Your task to perform on an android device: Is it going to rain today? Image 0: 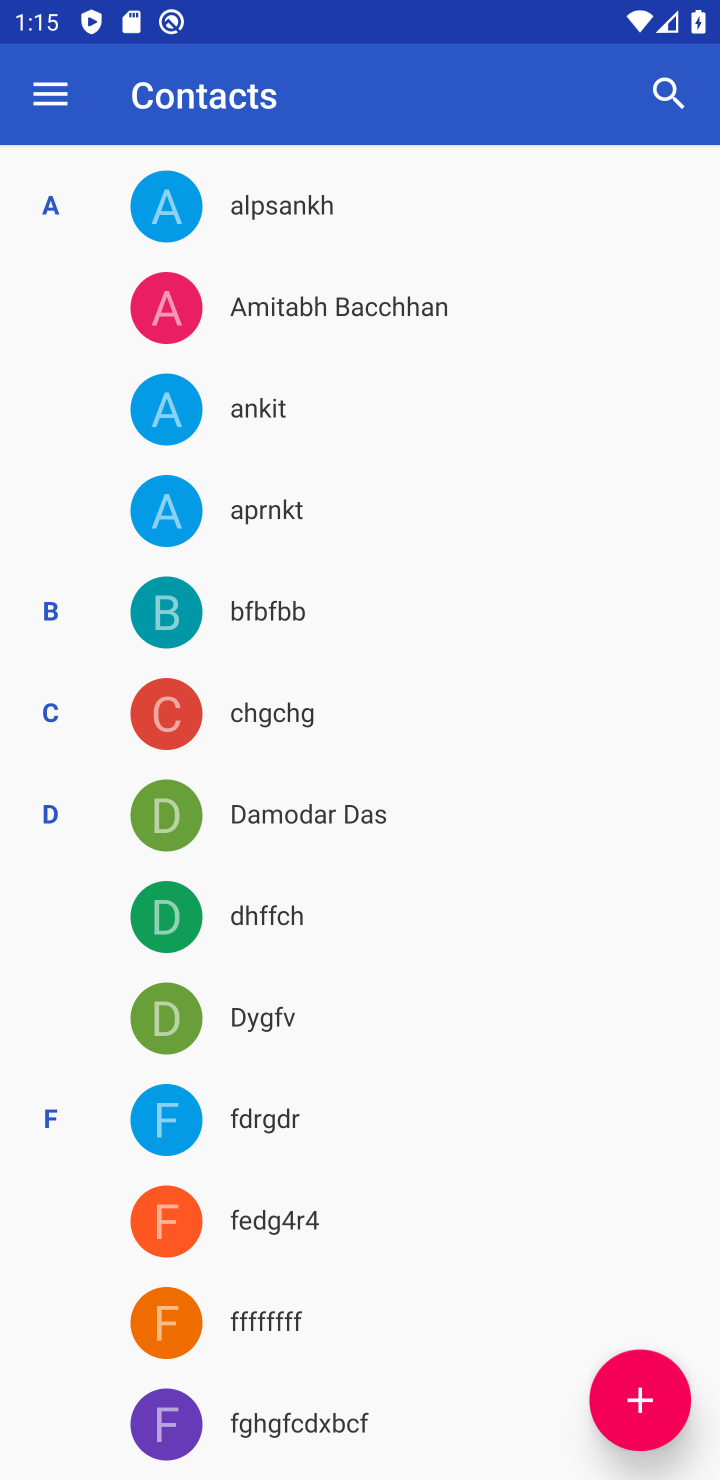
Step 0: press home button
Your task to perform on an android device: Is it going to rain today? Image 1: 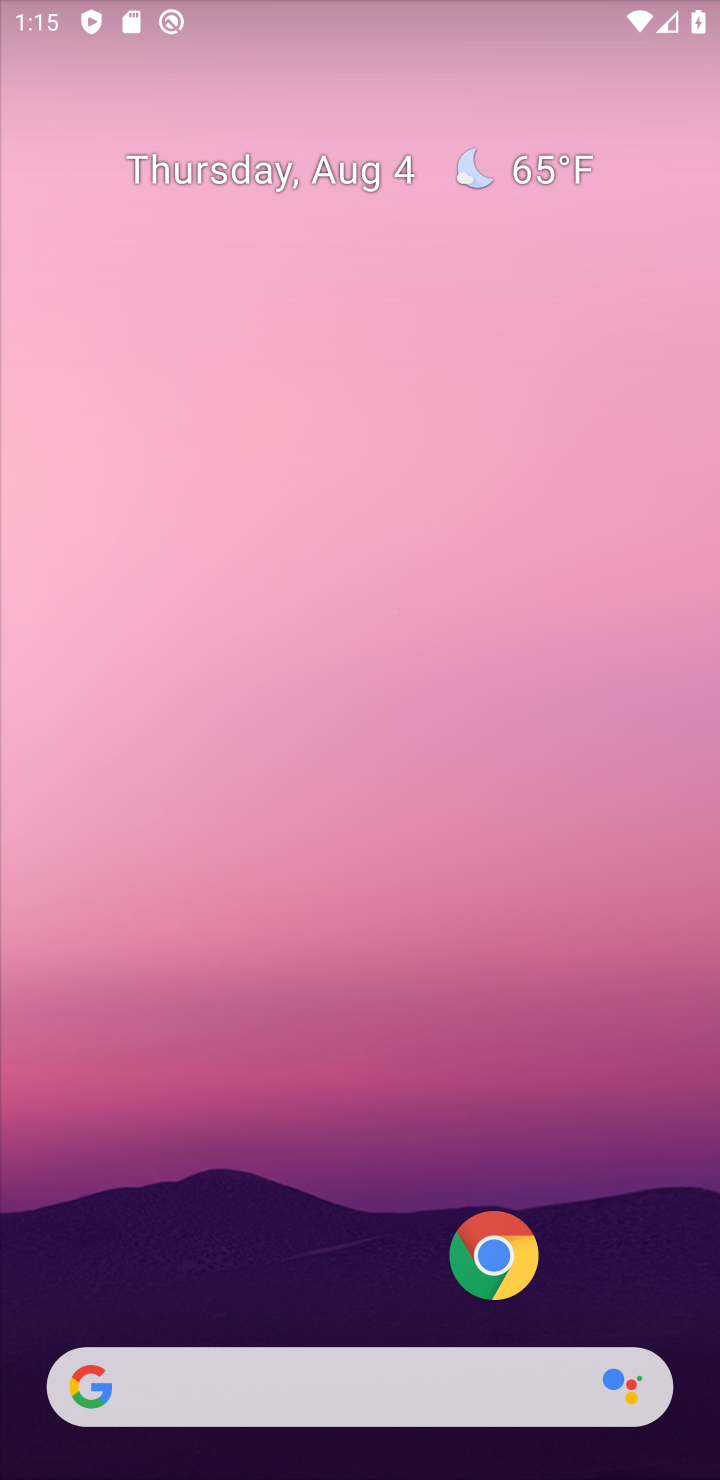
Step 1: drag from (205, 956) to (232, 85)
Your task to perform on an android device: Is it going to rain today? Image 2: 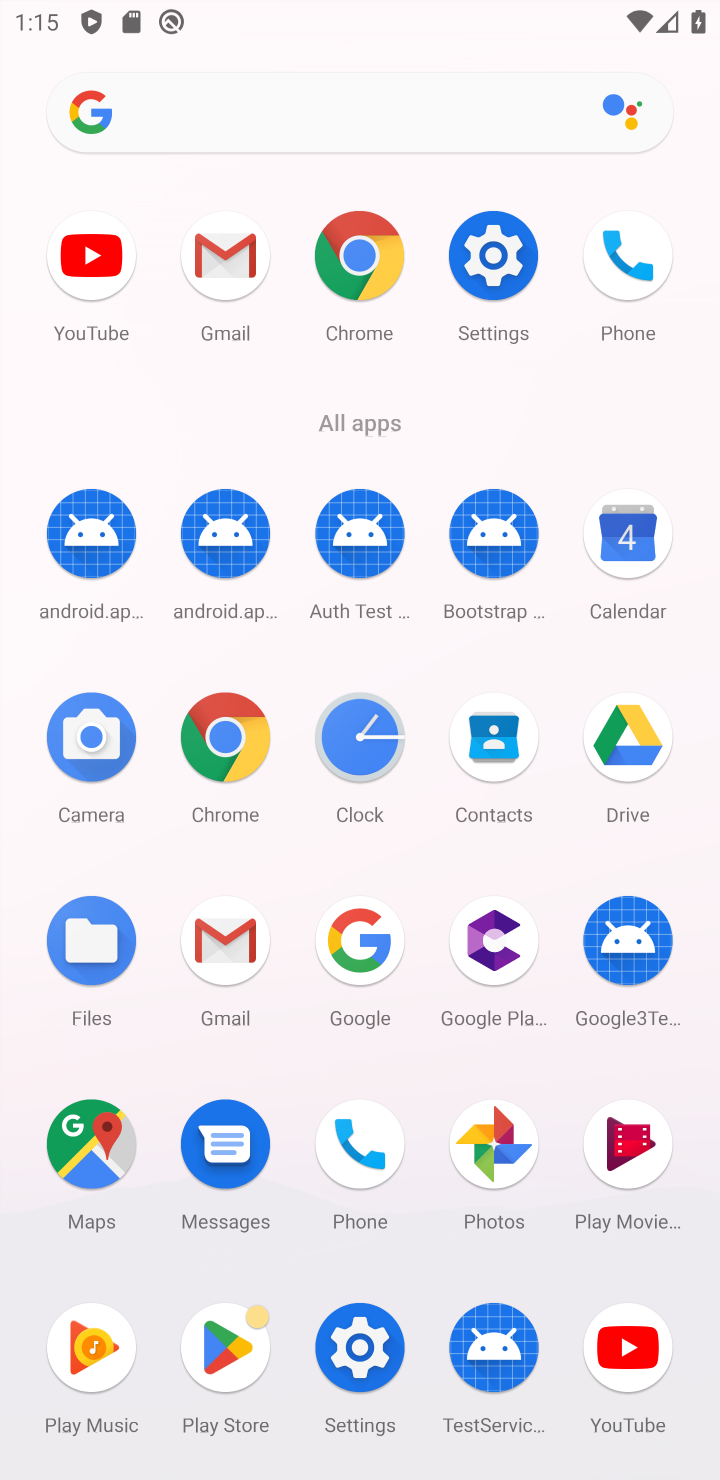
Step 2: click (365, 910)
Your task to perform on an android device: Is it going to rain today? Image 3: 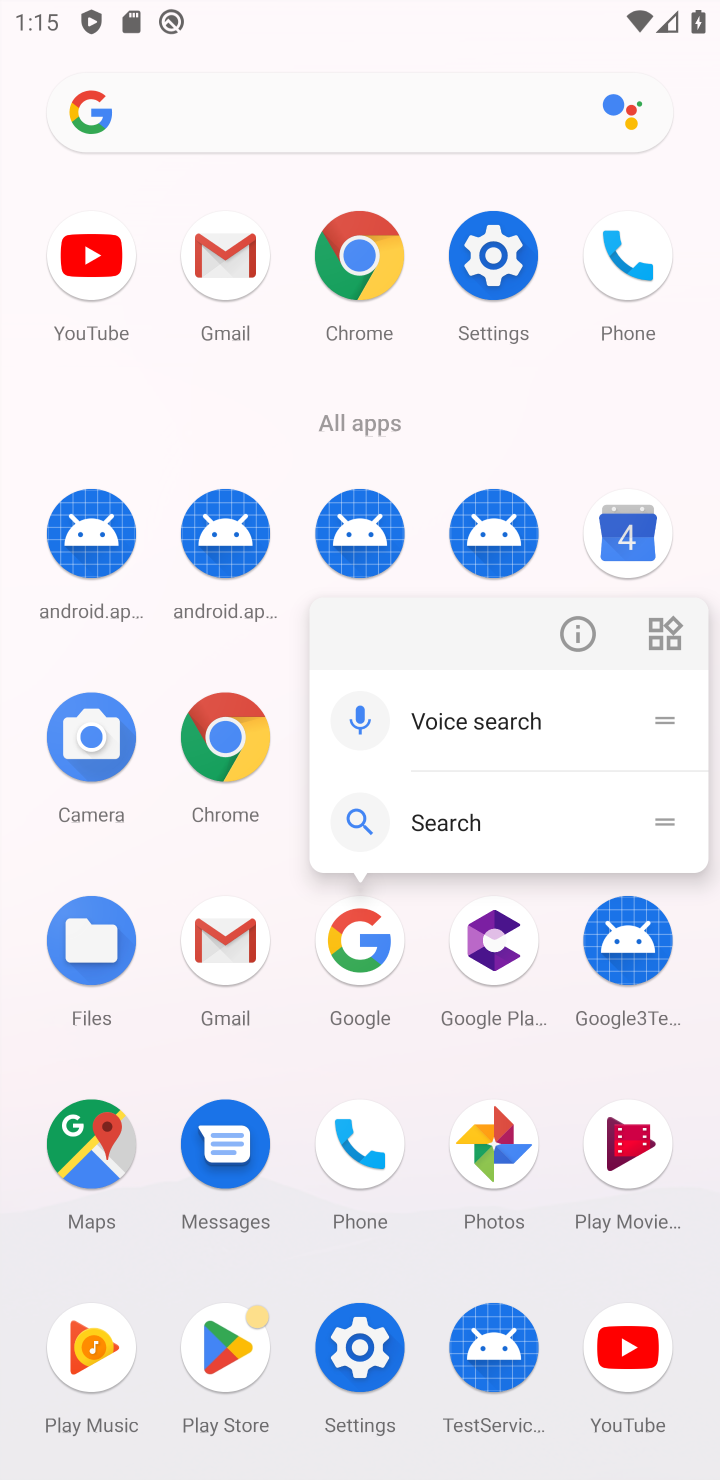
Step 3: click (349, 947)
Your task to perform on an android device: Is it going to rain today? Image 4: 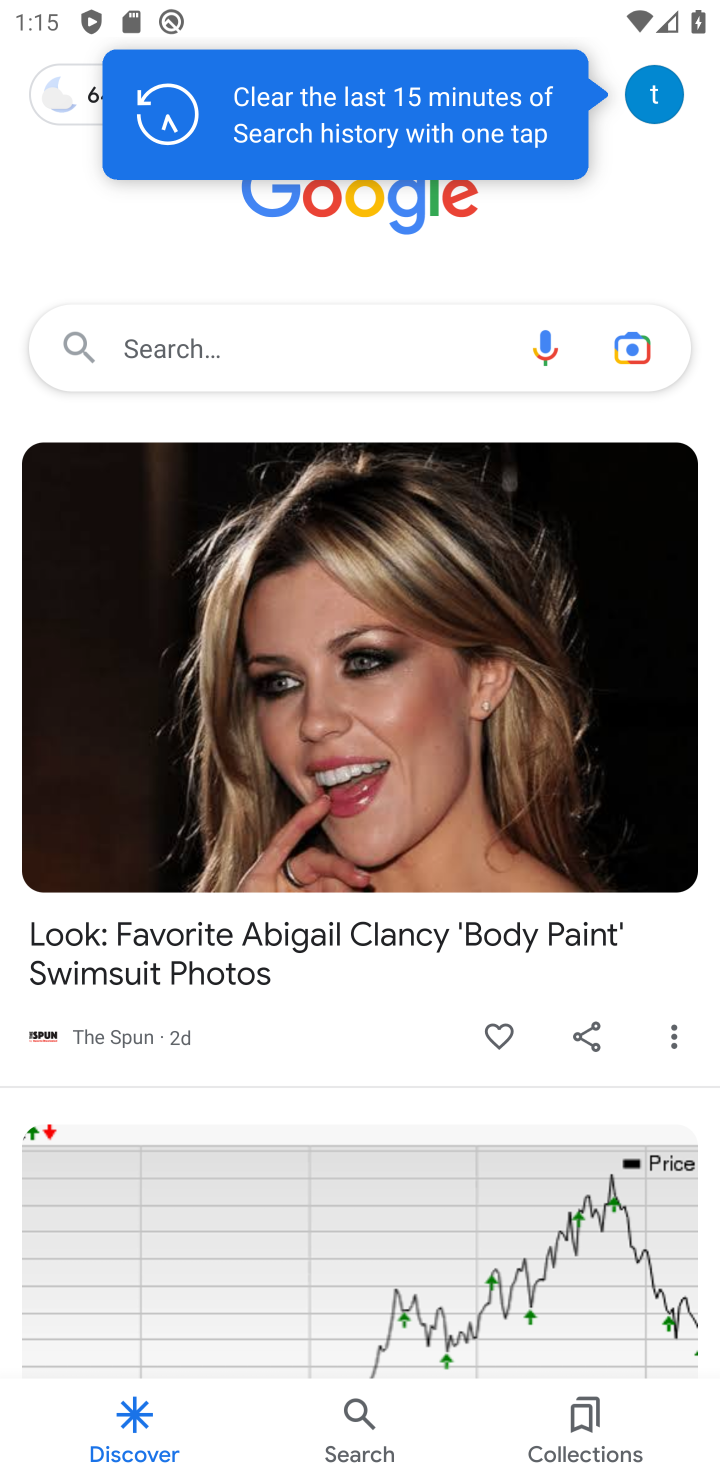
Step 4: click (362, 933)
Your task to perform on an android device: Is it going to rain today? Image 5: 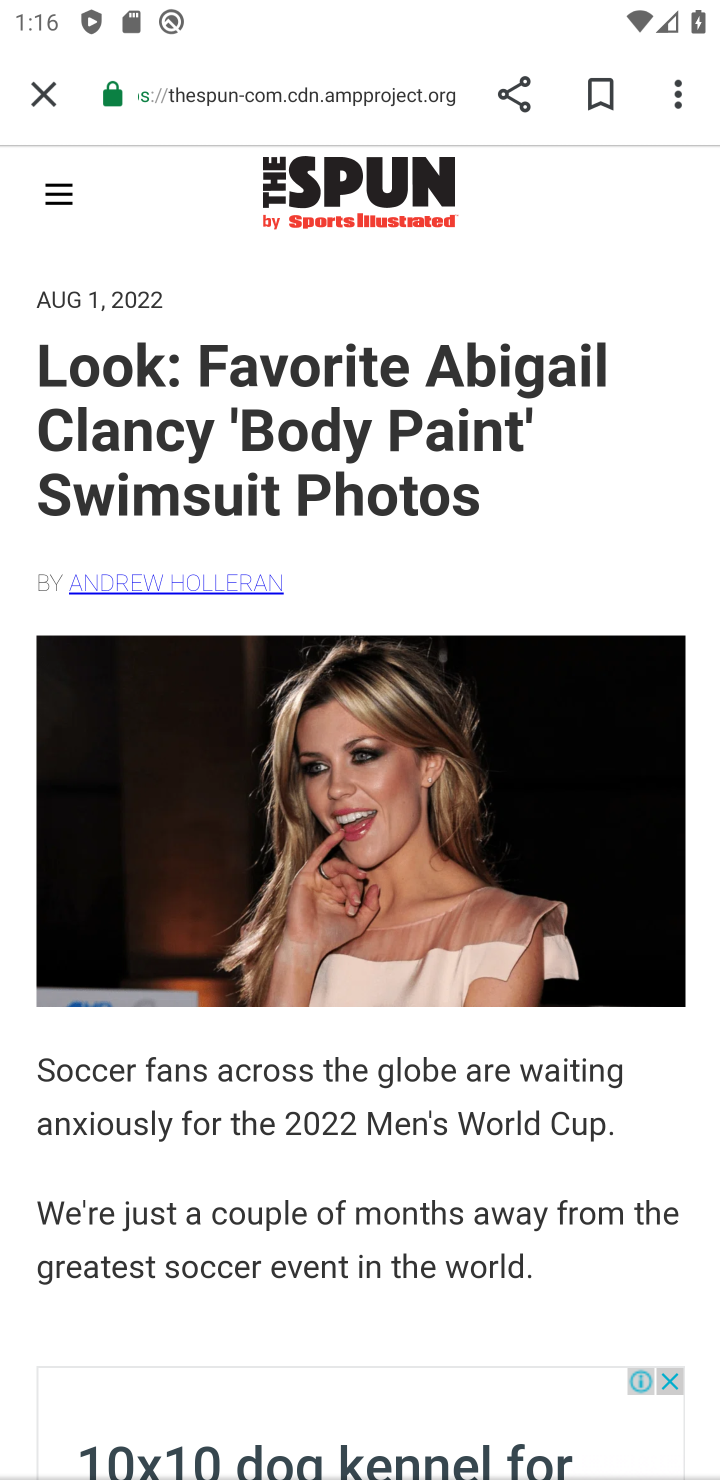
Step 5: click (34, 80)
Your task to perform on an android device: Is it going to rain today? Image 6: 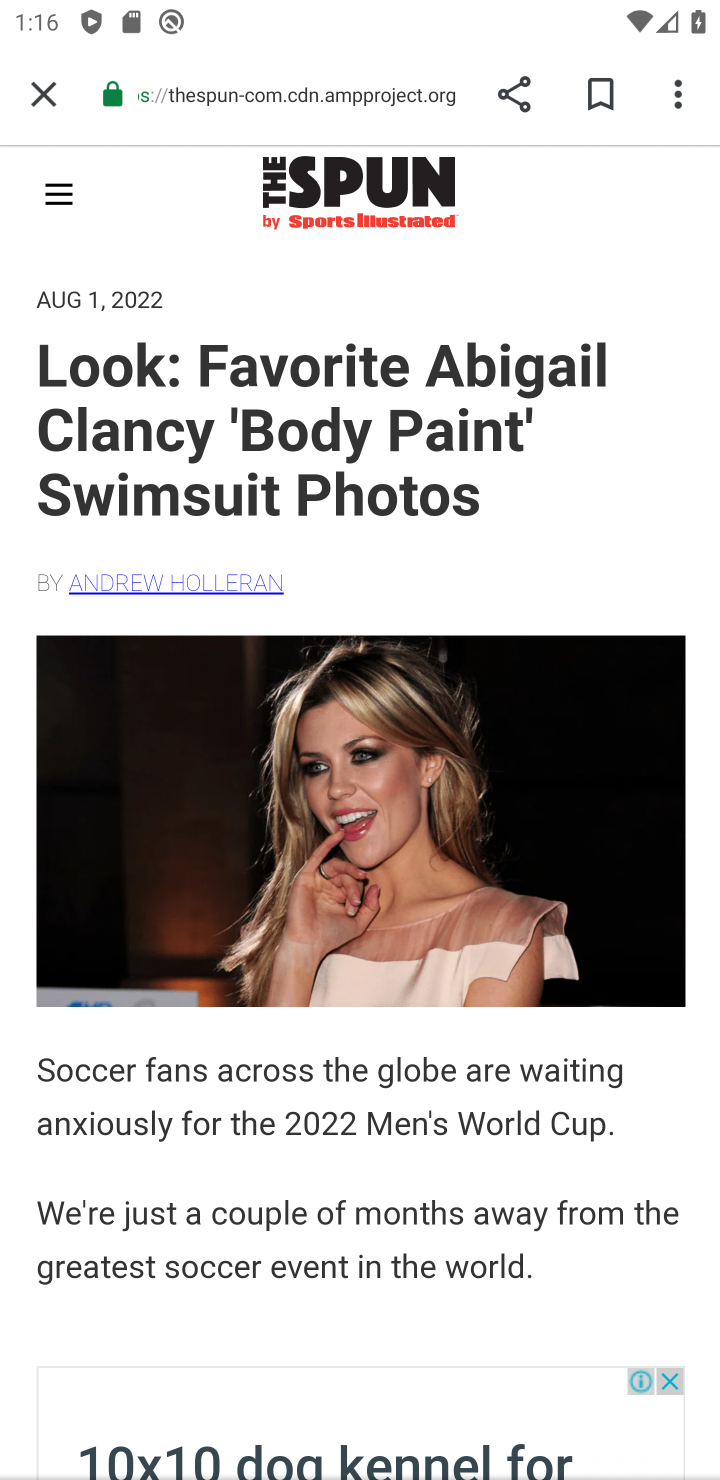
Step 6: click (19, 86)
Your task to perform on an android device: Is it going to rain today? Image 7: 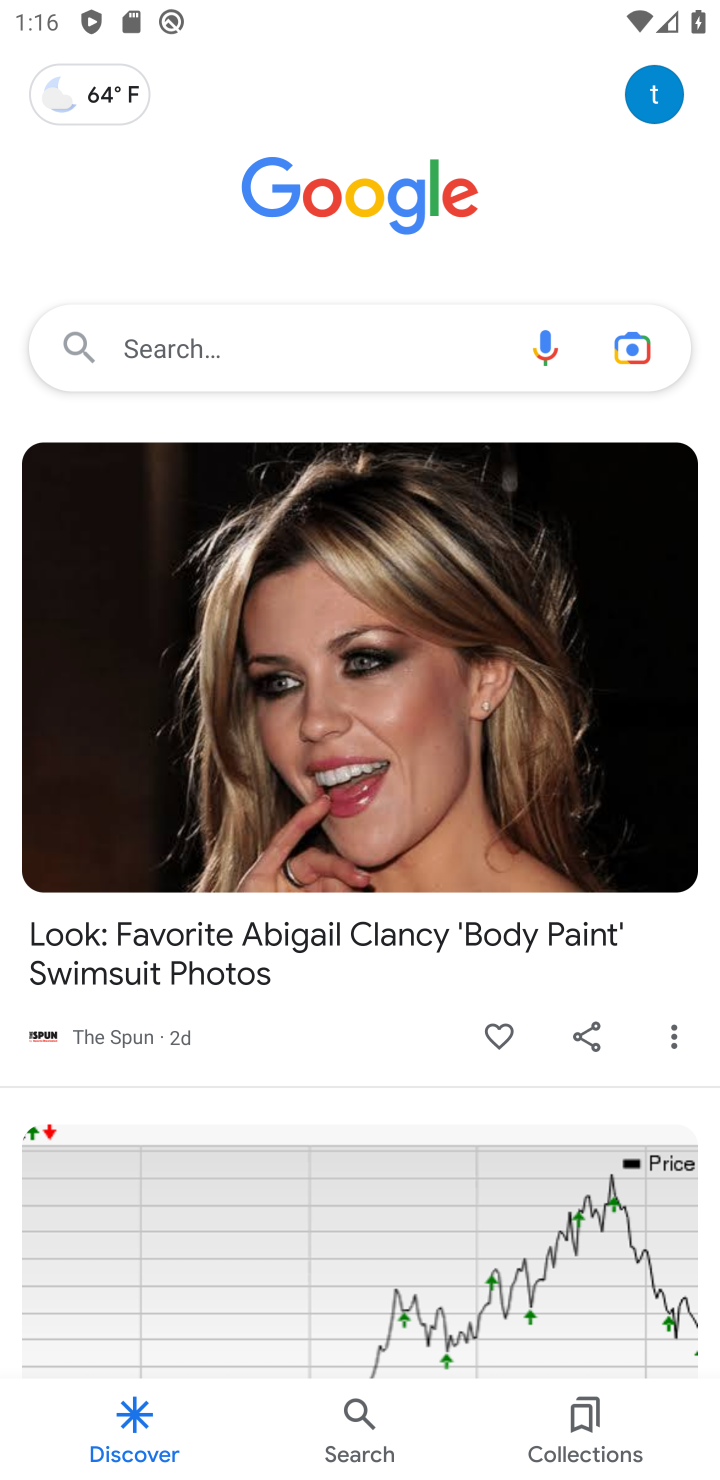
Step 7: click (84, 113)
Your task to perform on an android device: Is it going to rain today? Image 8: 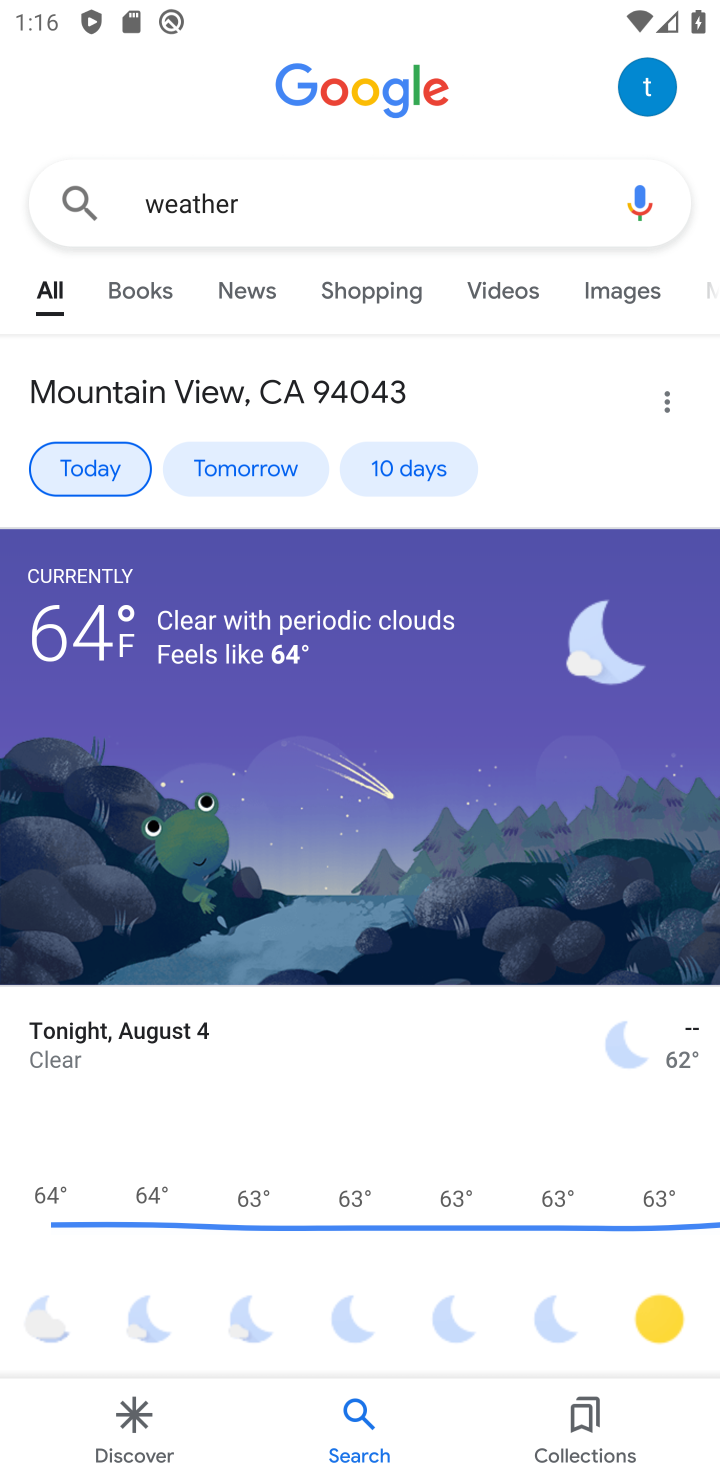
Step 8: task complete